Your task to perform on an android device: turn on bluetooth scan Image 0: 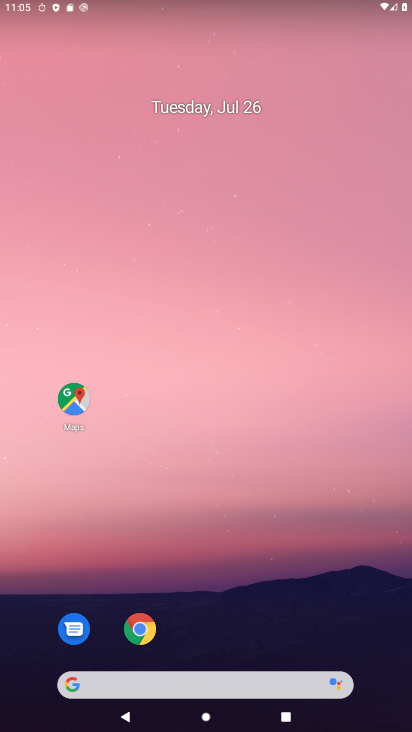
Step 0: drag from (335, 624) to (207, 29)
Your task to perform on an android device: turn on bluetooth scan Image 1: 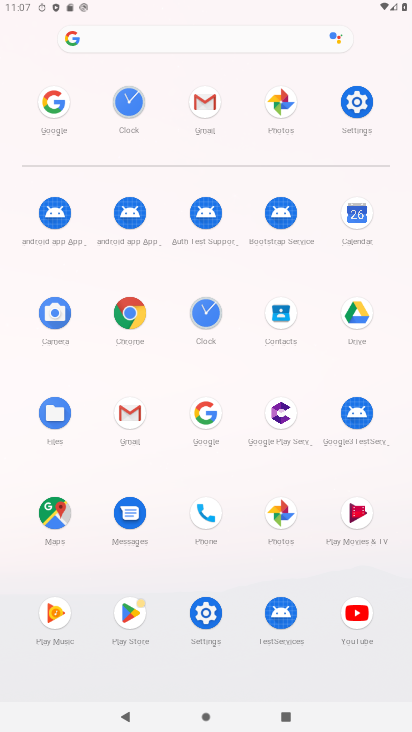
Step 1: click (208, 623)
Your task to perform on an android device: turn on bluetooth scan Image 2: 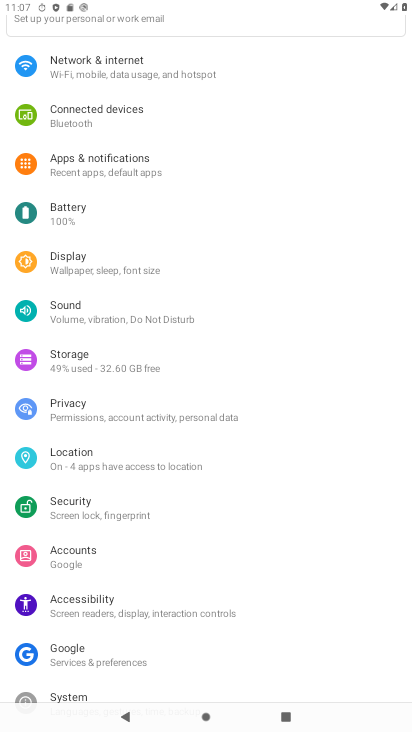
Step 2: click (88, 456)
Your task to perform on an android device: turn on bluetooth scan Image 3: 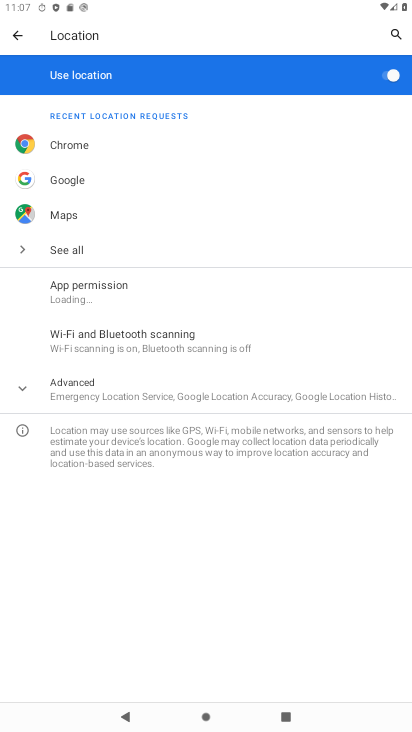
Step 3: click (145, 347)
Your task to perform on an android device: turn on bluetooth scan Image 4: 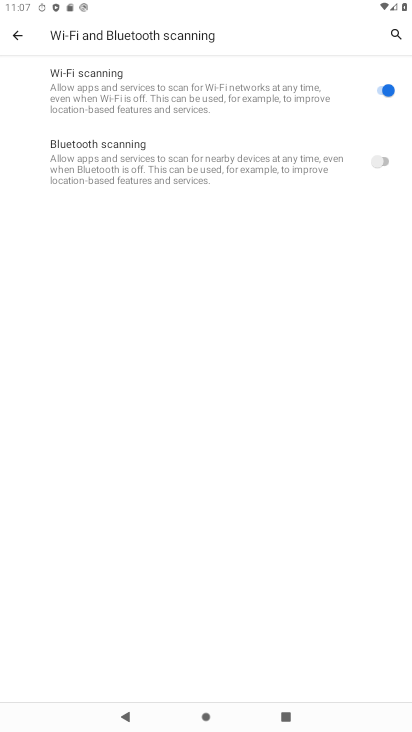
Step 4: click (348, 160)
Your task to perform on an android device: turn on bluetooth scan Image 5: 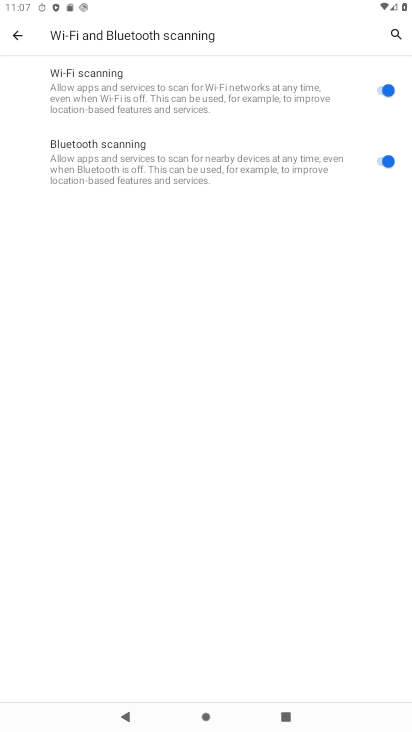
Step 5: task complete